Your task to perform on an android device: Set the phone to "Do not disturb". Image 0: 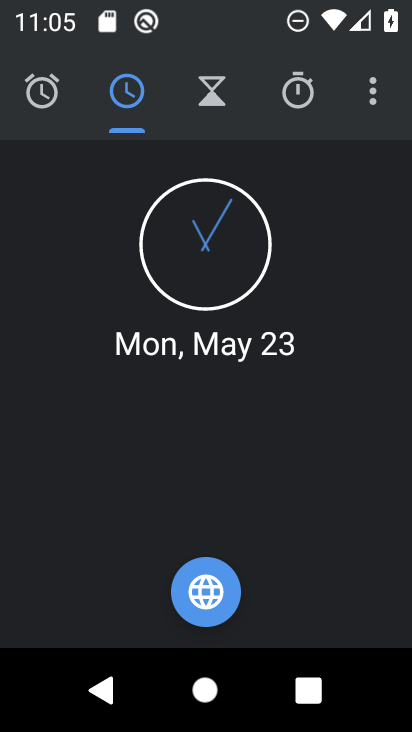
Step 0: press home button
Your task to perform on an android device: Set the phone to "Do not disturb". Image 1: 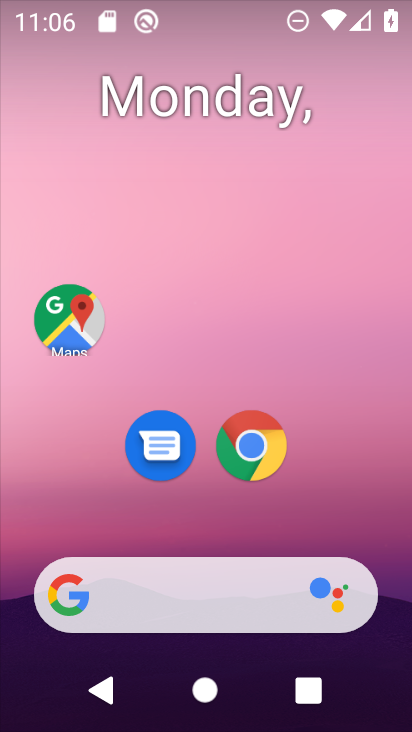
Step 1: task complete